Your task to perform on an android device: change the clock display to show seconds Image 0: 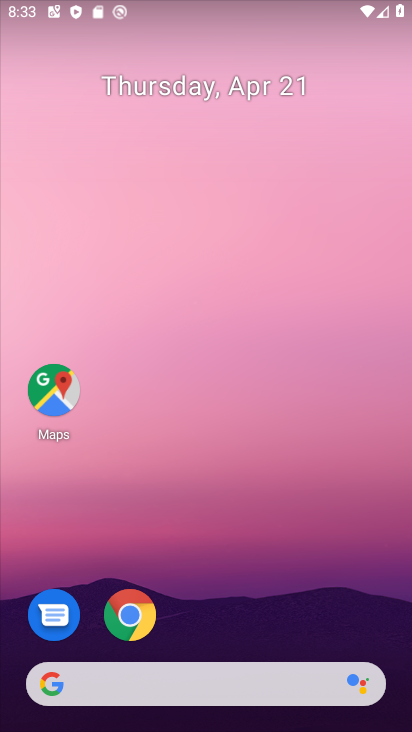
Step 0: drag from (233, 582) to (213, 116)
Your task to perform on an android device: change the clock display to show seconds Image 1: 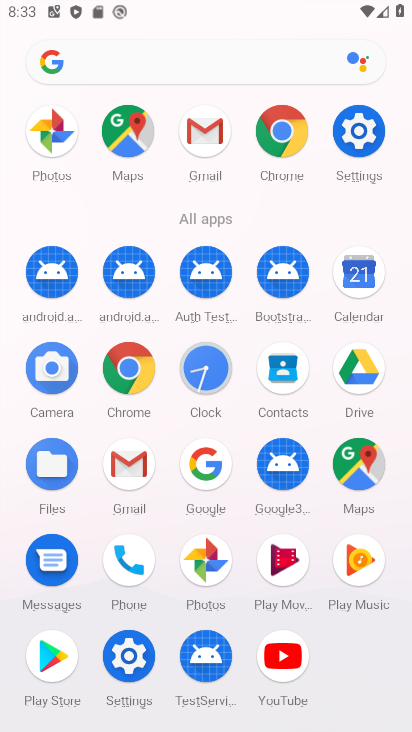
Step 1: click (204, 377)
Your task to perform on an android device: change the clock display to show seconds Image 2: 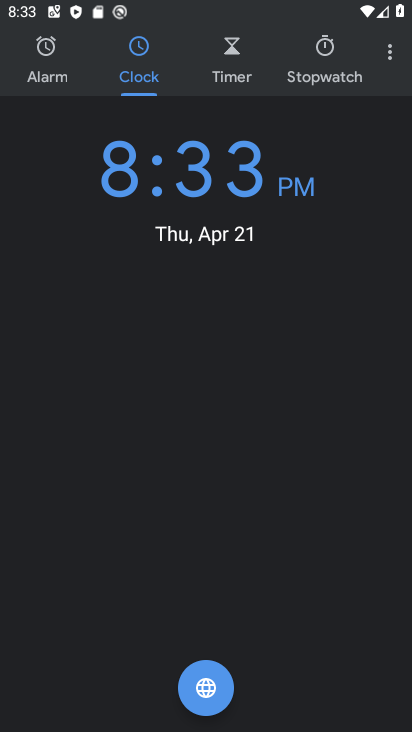
Step 2: click (386, 51)
Your task to perform on an android device: change the clock display to show seconds Image 3: 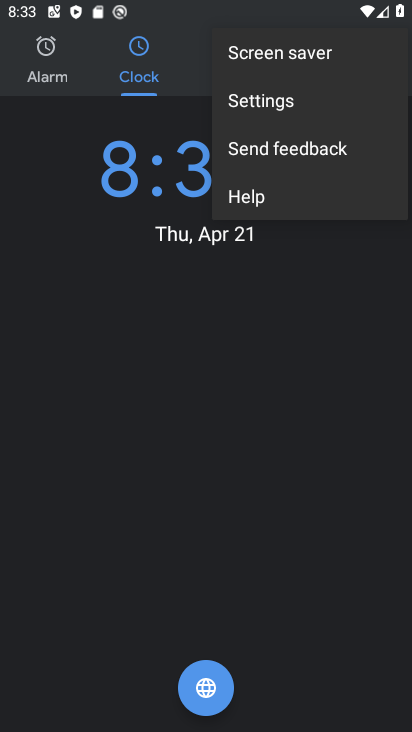
Step 3: click (270, 105)
Your task to perform on an android device: change the clock display to show seconds Image 4: 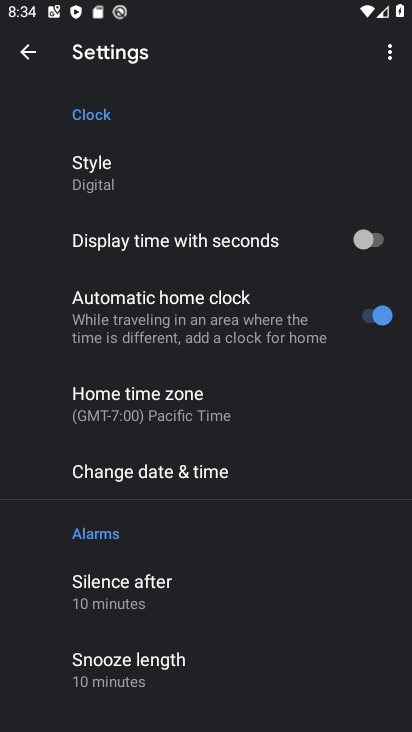
Step 4: click (365, 231)
Your task to perform on an android device: change the clock display to show seconds Image 5: 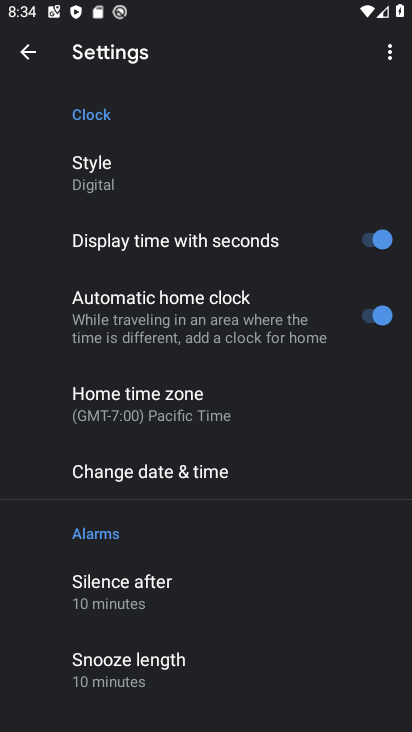
Step 5: task complete